Your task to perform on an android device: change keyboard looks Image 0: 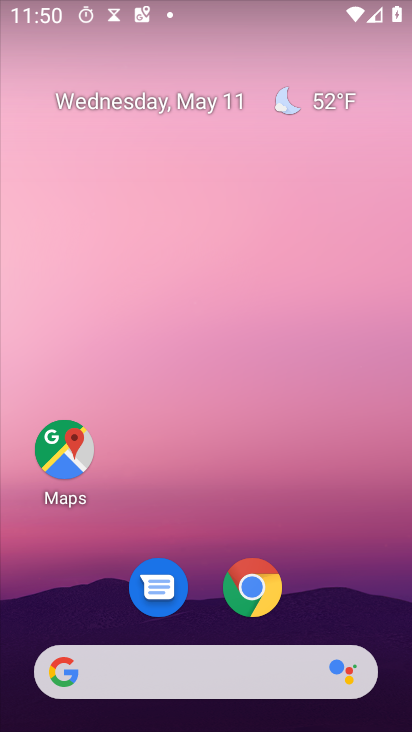
Step 0: drag from (242, 676) to (384, 144)
Your task to perform on an android device: change keyboard looks Image 1: 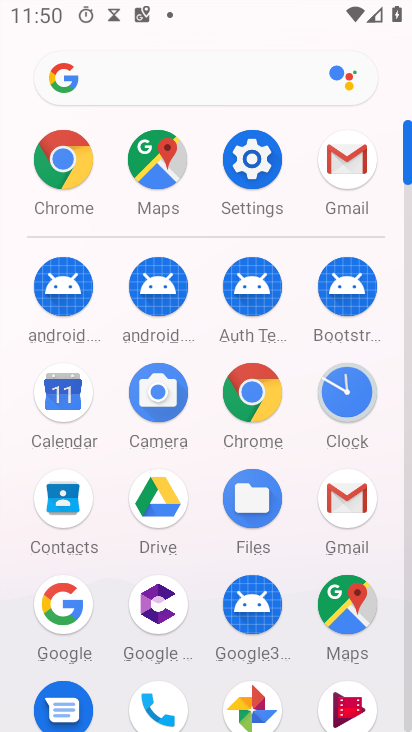
Step 1: click (256, 168)
Your task to perform on an android device: change keyboard looks Image 2: 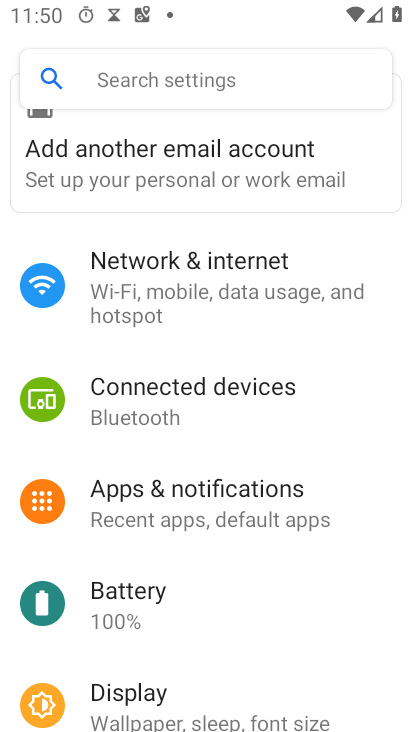
Step 2: click (202, 80)
Your task to perform on an android device: change keyboard looks Image 3: 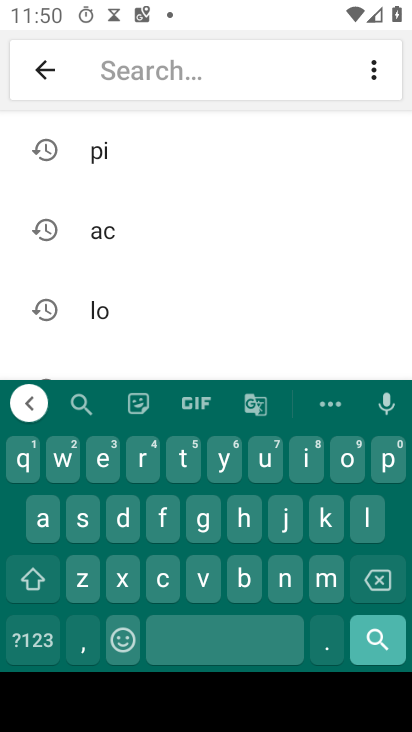
Step 3: click (328, 513)
Your task to perform on an android device: change keyboard looks Image 4: 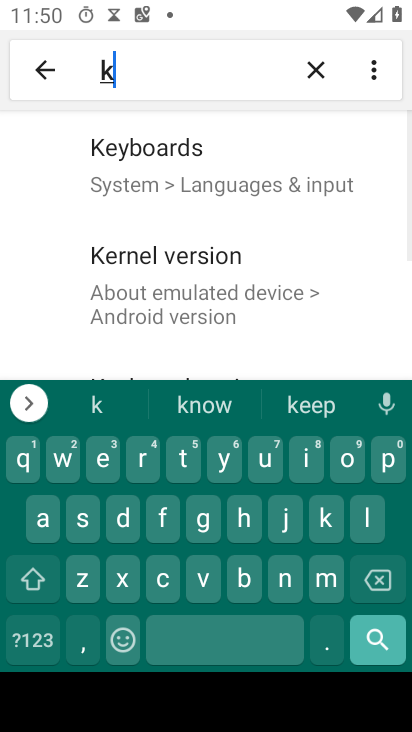
Step 4: click (103, 462)
Your task to perform on an android device: change keyboard looks Image 5: 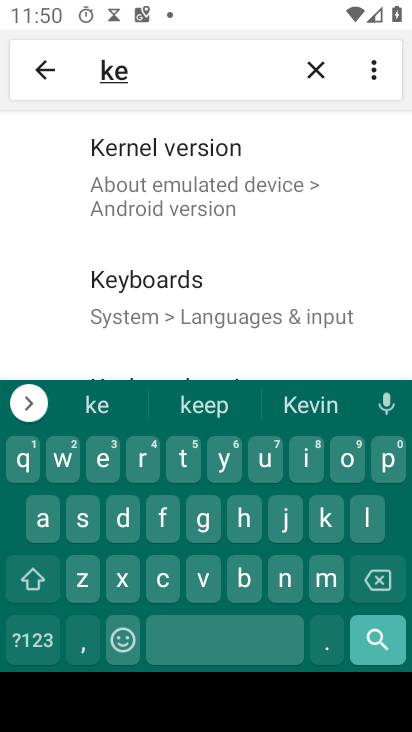
Step 5: click (149, 290)
Your task to perform on an android device: change keyboard looks Image 6: 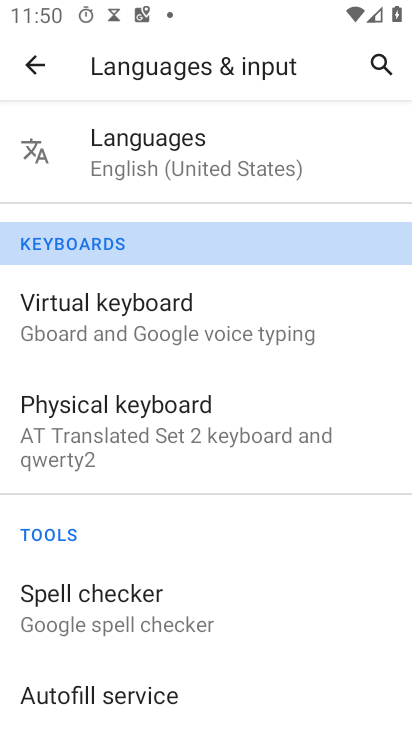
Step 6: click (126, 332)
Your task to perform on an android device: change keyboard looks Image 7: 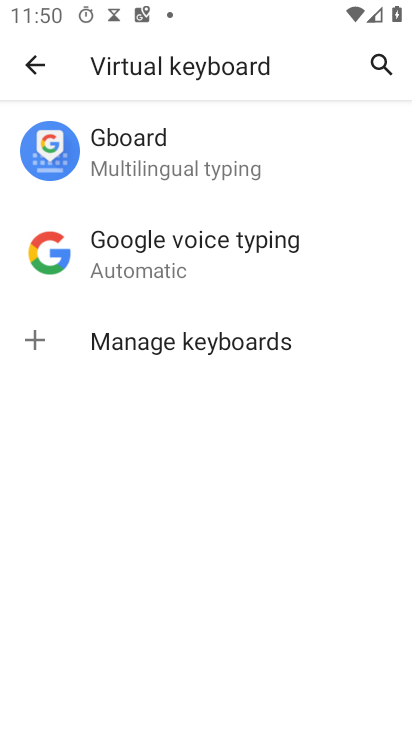
Step 7: click (148, 181)
Your task to perform on an android device: change keyboard looks Image 8: 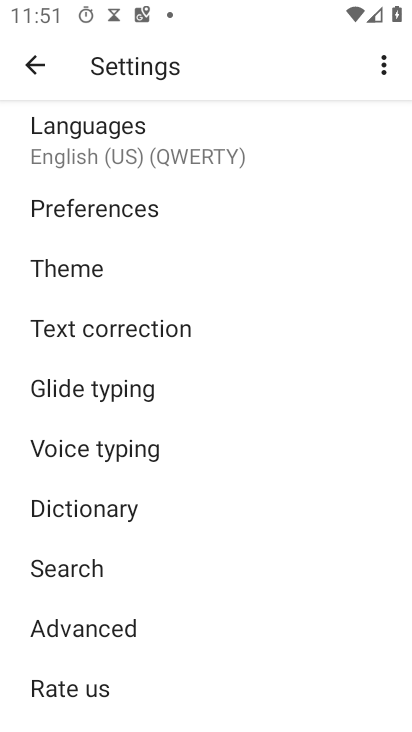
Step 8: click (73, 269)
Your task to perform on an android device: change keyboard looks Image 9: 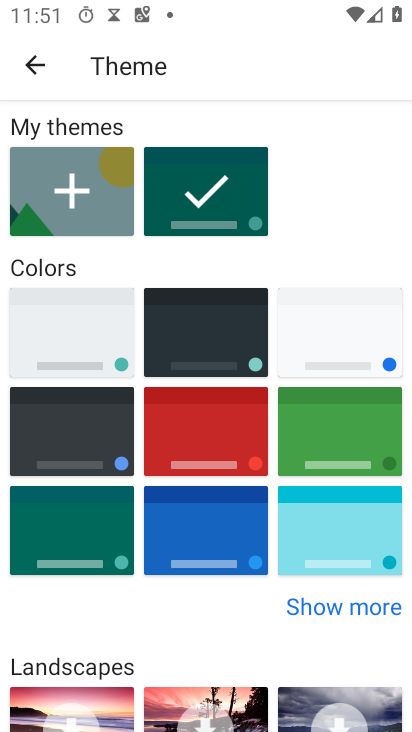
Step 9: click (57, 532)
Your task to perform on an android device: change keyboard looks Image 10: 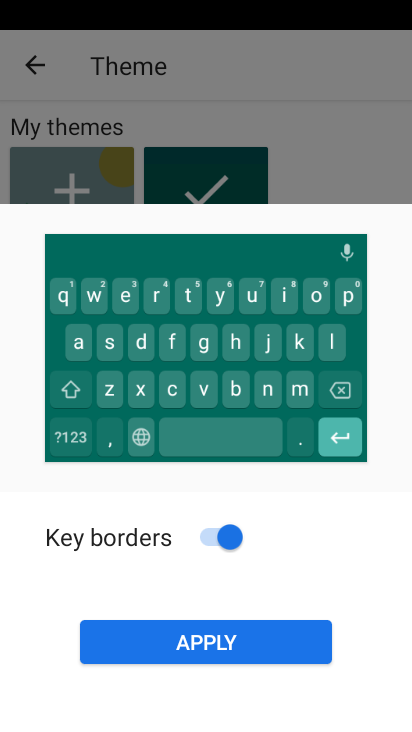
Step 10: click (183, 630)
Your task to perform on an android device: change keyboard looks Image 11: 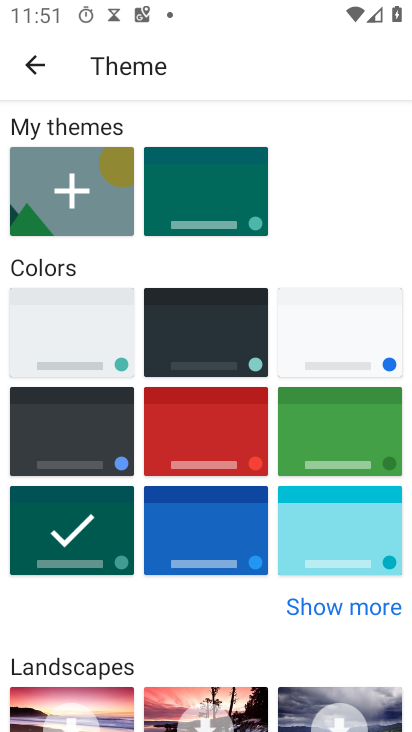
Step 11: task complete